Your task to perform on an android device: show emergency info Image 0: 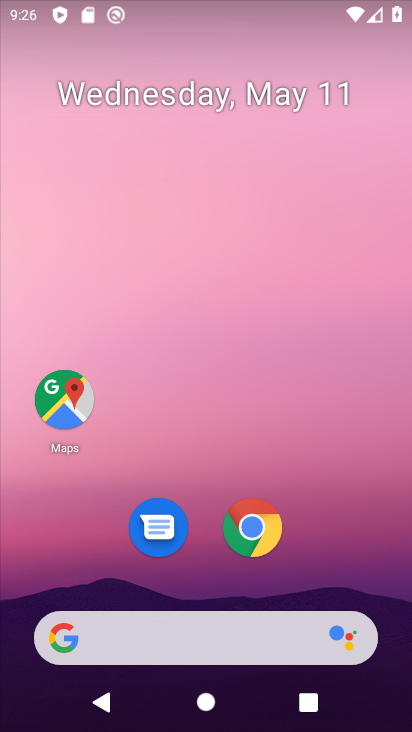
Step 0: drag from (88, 564) to (201, 70)
Your task to perform on an android device: show emergency info Image 1: 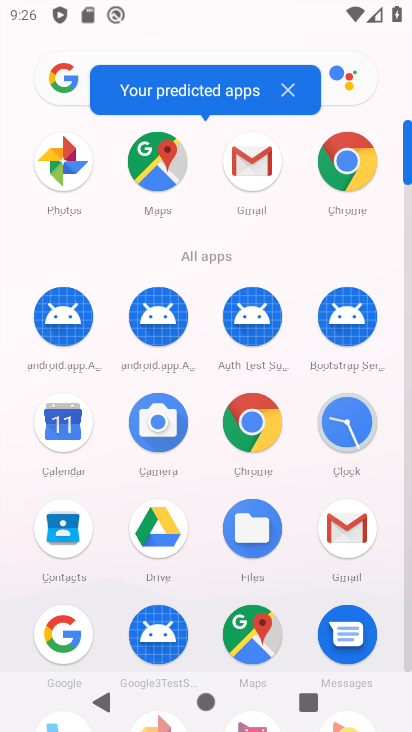
Step 1: drag from (167, 615) to (221, 340)
Your task to perform on an android device: show emergency info Image 2: 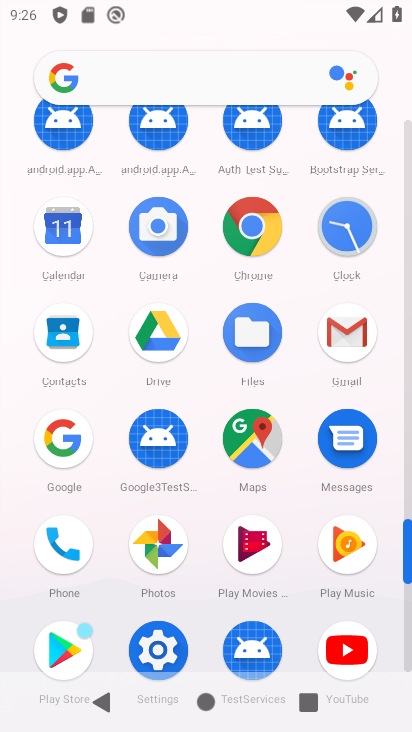
Step 2: click (158, 659)
Your task to perform on an android device: show emergency info Image 3: 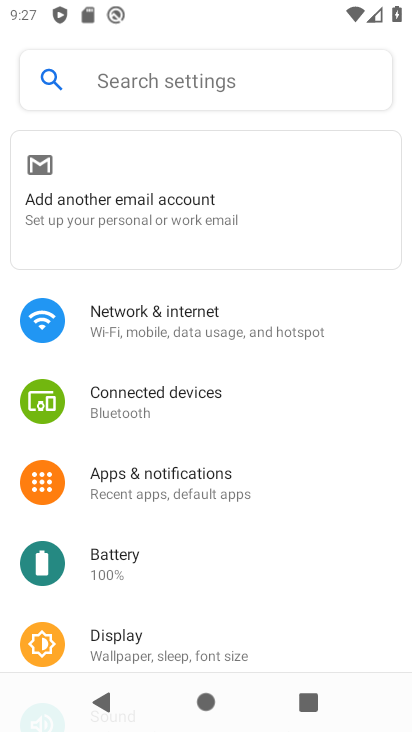
Step 3: drag from (206, 634) to (321, 53)
Your task to perform on an android device: show emergency info Image 4: 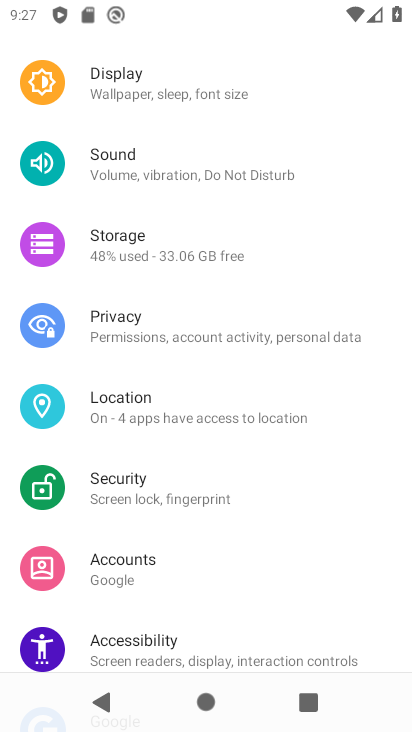
Step 4: drag from (194, 596) to (294, 139)
Your task to perform on an android device: show emergency info Image 5: 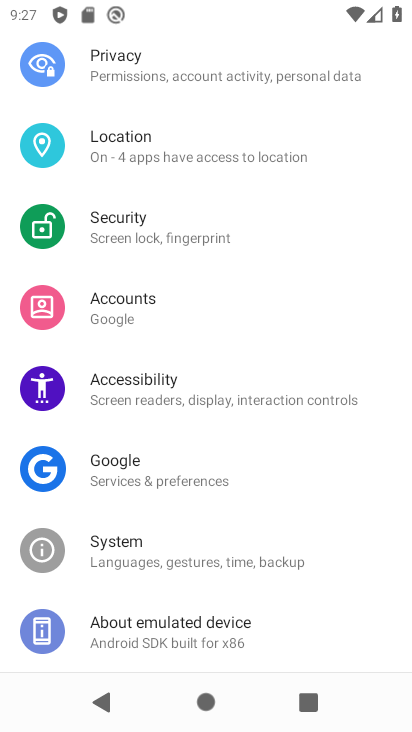
Step 5: click (208, 635)
Your task to perform on an android device: show emergency info Image 6: 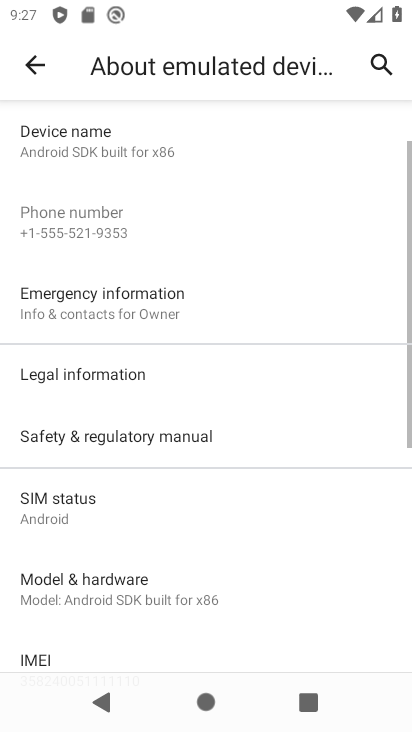
Step 6: click (214, 297)
Your task to perform on an android device: show emergency info Image 7: 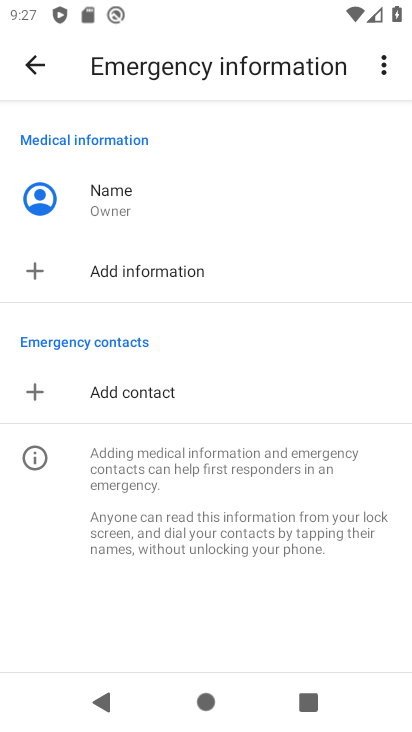
Step 7: task complete